Your task to perform on an android device: Clear the shopping cart on costco.com. Search for "usb-a" on costco.com, select the first entry, and add it to the cart. Image 0: 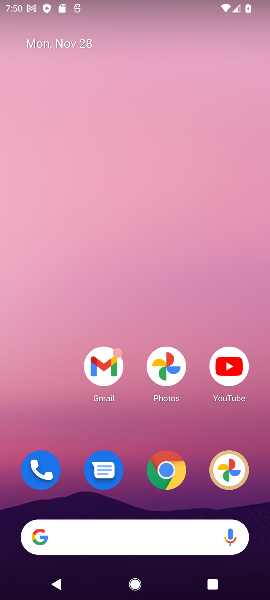
Step 0: click (126, 533)
Your task to perform on an android device: Clear the shopping cart on costco.com. Search for "usb-a" on costco.com, select the first entry, and add it to the cart. Image 1: 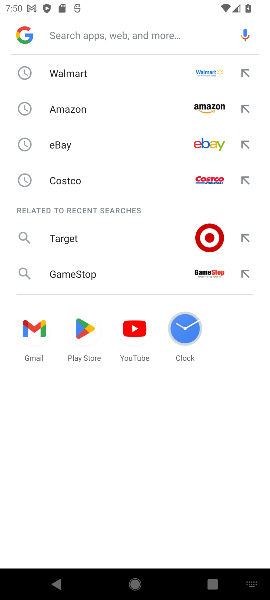
Step 1: click (65, 183)
Your task to perform on an android device: Clear the shopping cart on costco.com. Search for "usb-a" on costco.com, select the first entry, and add it to the cart. Image 2: 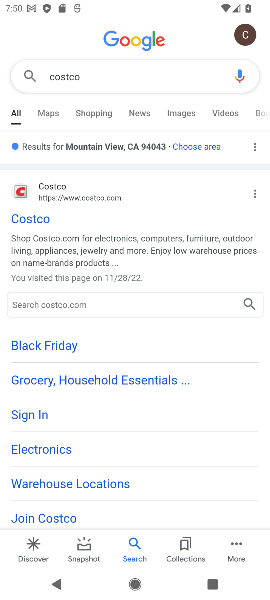
Step 2: click (41, 190)
Your task to perform on an android device: Clear the shopping cart on costco.com. Search for "usb-a" on costco.com, select the first entry, and add it to the cart. Image 3: 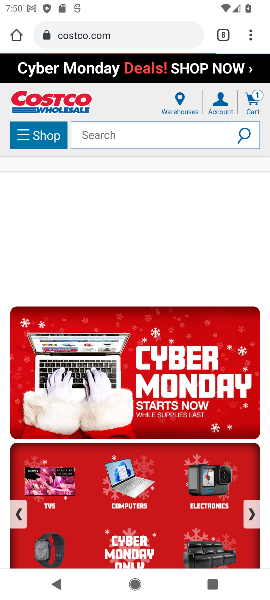
Step 3: click (135, 135)
Your task to perform on an android device: Clear the shopping cart on costco.com. Search for "usb-a" on costco.com, select the first entry, and add it to the cart. Image 4: 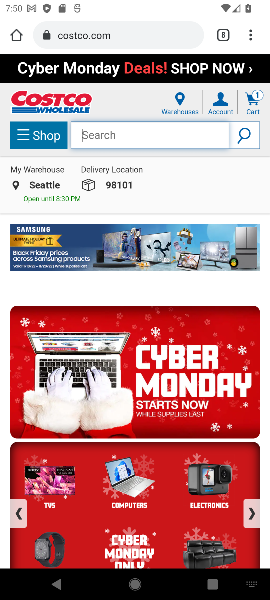
Step 4: type "usb-a"
Your task to perform on an android device: Clear the shopping cart on costco.com. Search for "usb-a" on costco.com, select the first entry, and add it to the cart. Image 5: 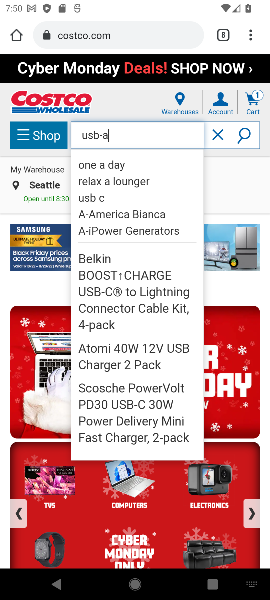
Step 5: click (246, 139)
Your task to perform on an android device: Clear the shopping cart on costco.com. Search for "usb-a" on costco.com, select the first entry, and add it to the cart. Image 6: 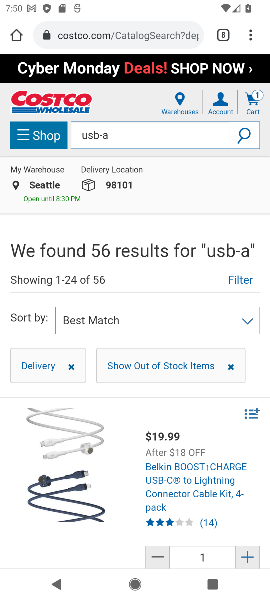
Step 6: click (254, 102)
Your task to perform on an android device: Clear the shopping cart on costco.com. Search for "usb-a" on costco.com, select the first entry, and add it to the cart. Image 7: 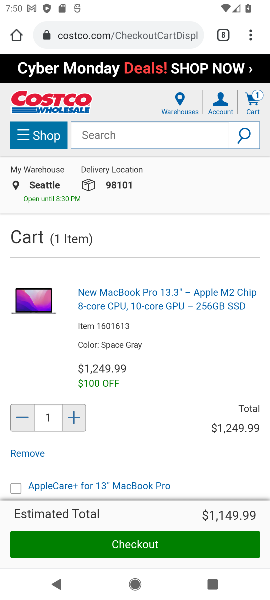
Step 7: task complete